Your task to perform on an android device: Go to Yahoo.com Image 0: 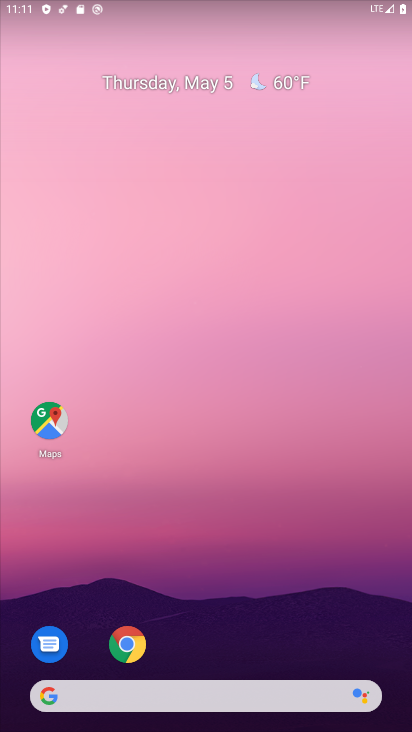
Step 0: drag from (349, 635) to (367, 80)
Your task to perform on an android device: Go to Yahoo.com Image 1: 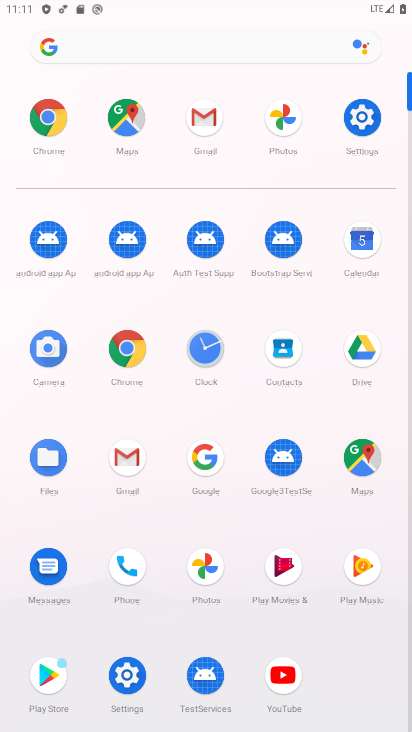
Step 1: click (49, 112)
Your task to perform on an android device: Go to Yahoo.com Image 2: 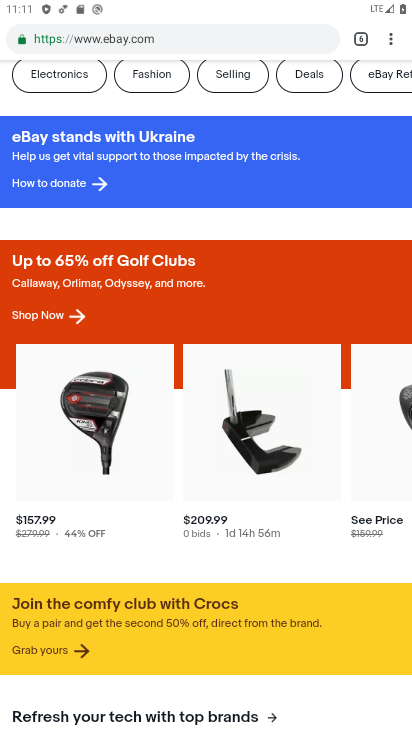
Step 2: click (263, 42)
Your task to perform on an android device: Go to Yahoo.com Image 3: 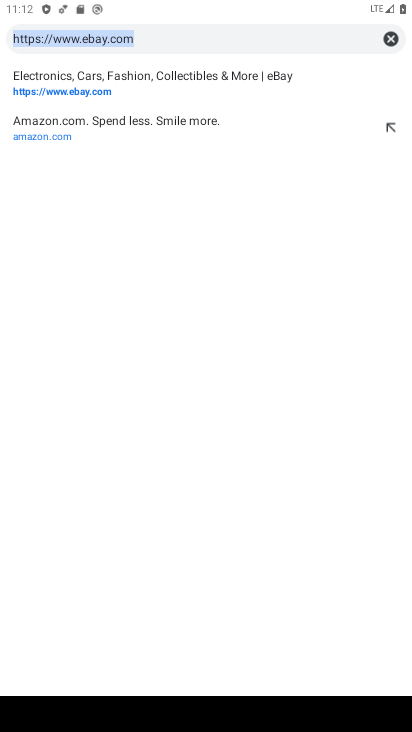
Step 3: click (392, 40)
Your task to perform on an android device: Go to Yahoo.com Image 4: 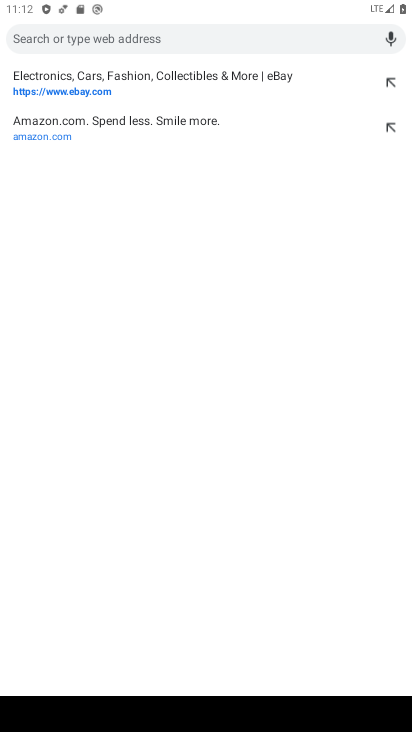
Step 4: type "yahoo.com"
Your task to perform on an android device: Go to Yahoo.com Image 5: 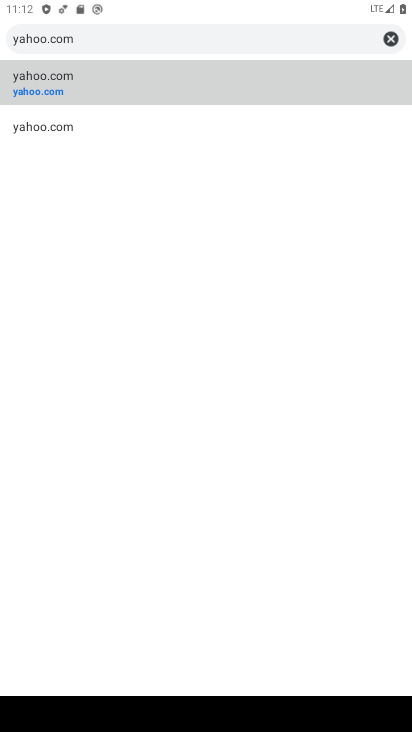
Step 5: click (47, 85)
Your task to perform on an android device: Go to Yahoo.com Image 6: 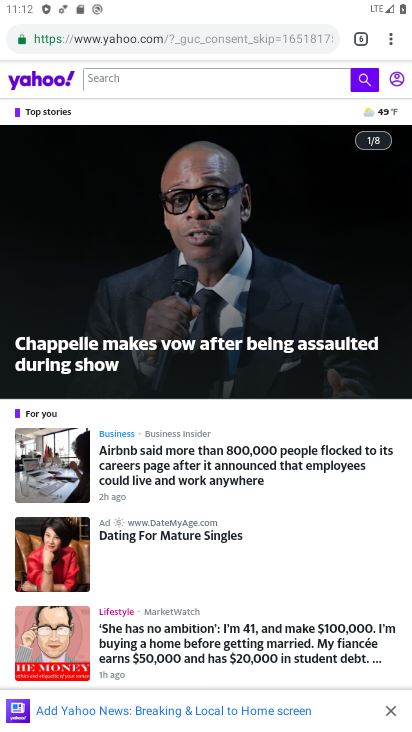
Step 6: task complete